Your task to perform on an android device: check the backup settings in the google photos Image 0: 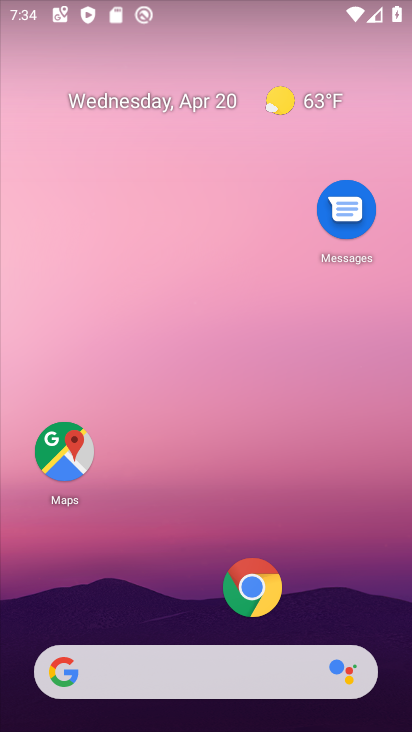
Step 0: drag from (163, 665) to (322, 51)
Your task to perform on an android device: check the backup settings in the google photos Image 1: 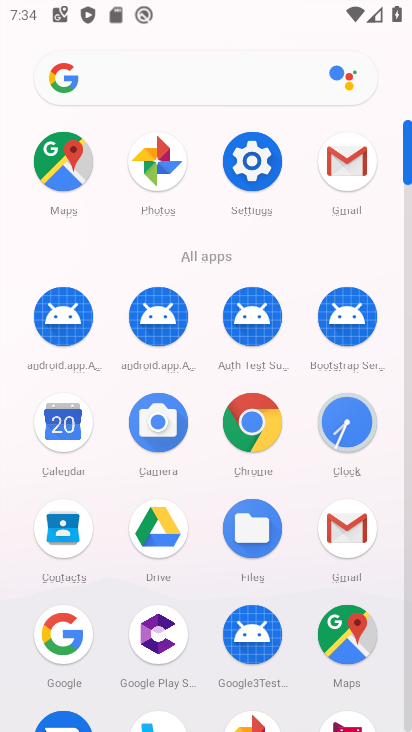
Step 1: click (169, 166)
Your task to perform on an android device: check the backup settings in the google photos Image 2: 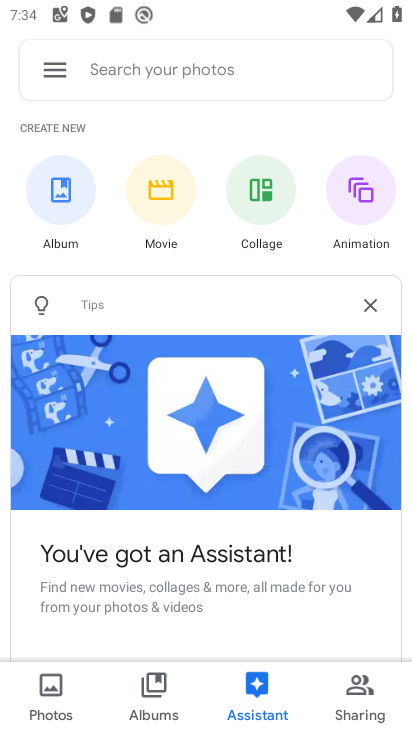
Step 2: click (61, 73)
Your task to perform on an android device: check the backup settings in the google photos Image 3: 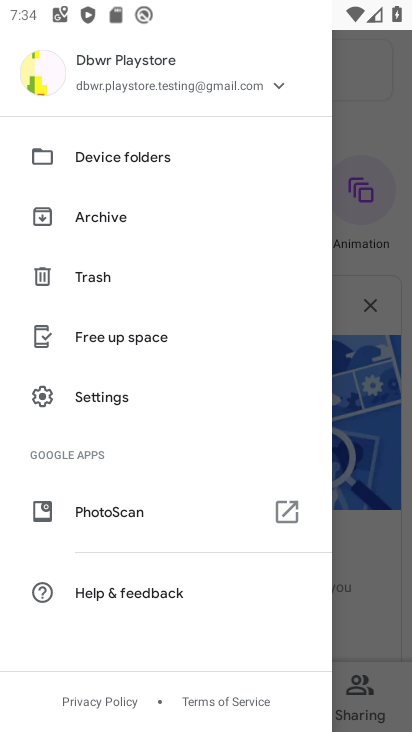
Step 3: click (114, 399)
Your task to perform on an android device: check the backup settings in the google photos Image 4: 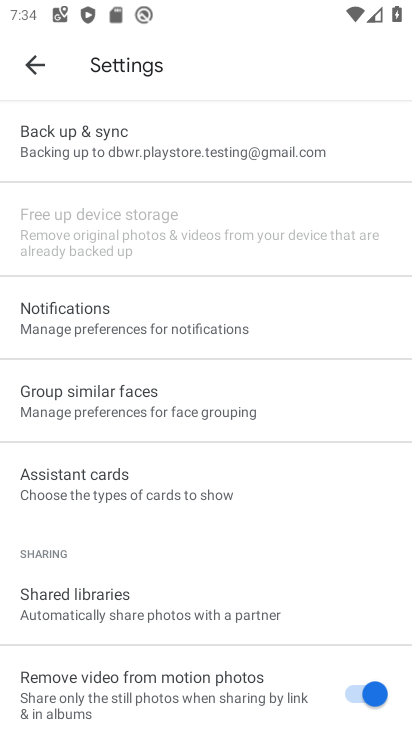
Step 4: click (163, 162)
Your task to perform on an android device: check the backup settings in the google photos Image 5: 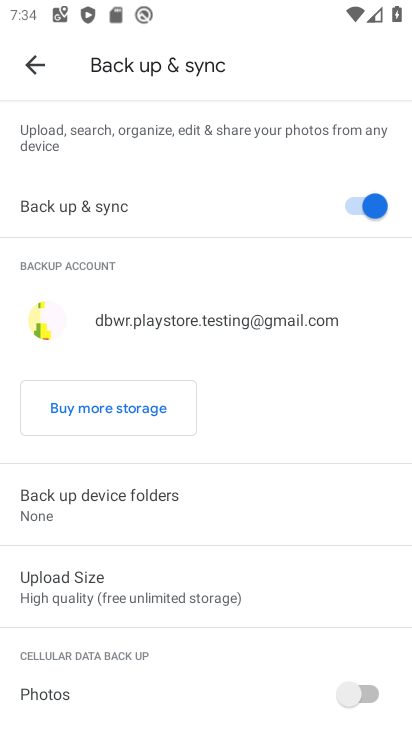
Step 5: task complete